Your task to perform on an android device: change keyboard looks Image 0: 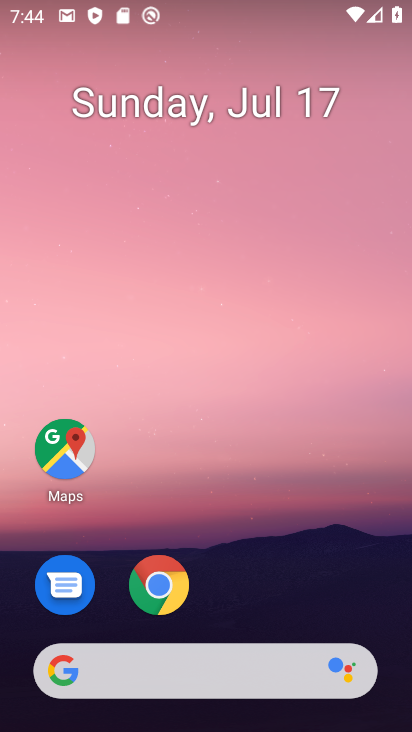
Step 0: drag from (179, 682) to (260, 344)
Your task to perform on an android device: change keyboard looks Image 1: 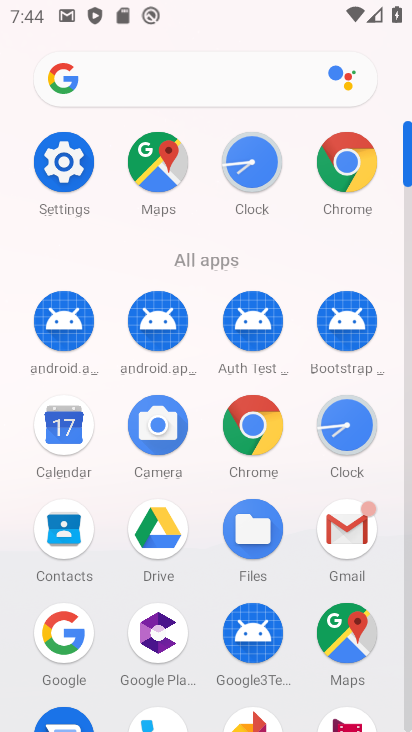
Step 1: click (60, 184)
Your task to perform on an android device: change keyboard looks Image 2: 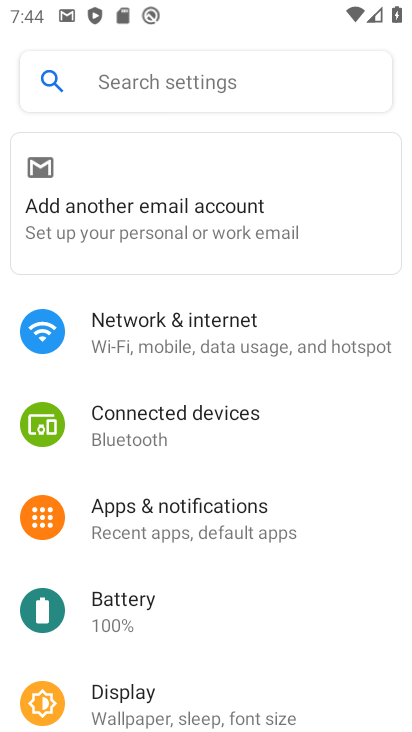
Step 2: drag from (281, 694) to (366, 129)
Your task to perform on an android device: change keyboard looks Image 3: 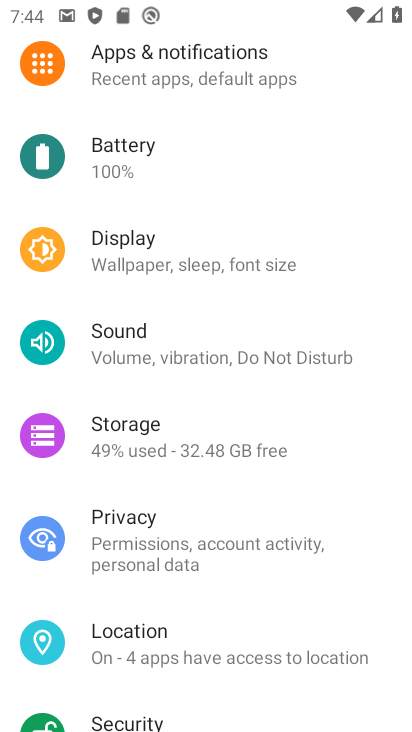
Step 3: drag from (237, 702) to (313, 213)
Your task to perform on an android device: change keyboard looks Image 4: 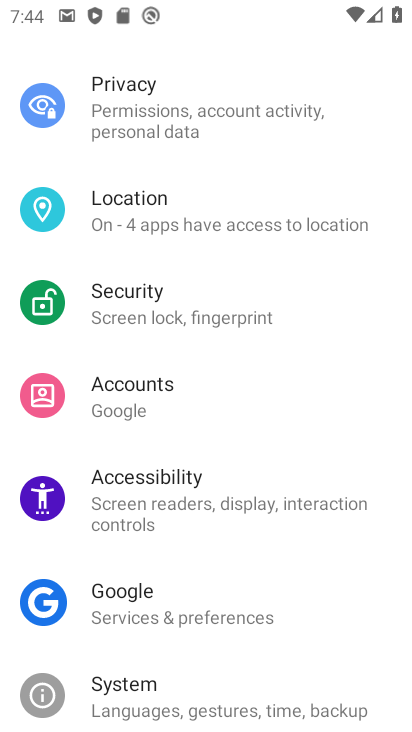
Step 4: drag from (244, 633) to (281, 131)
Your task to perform on an android device: change keyboard looks Image 5: 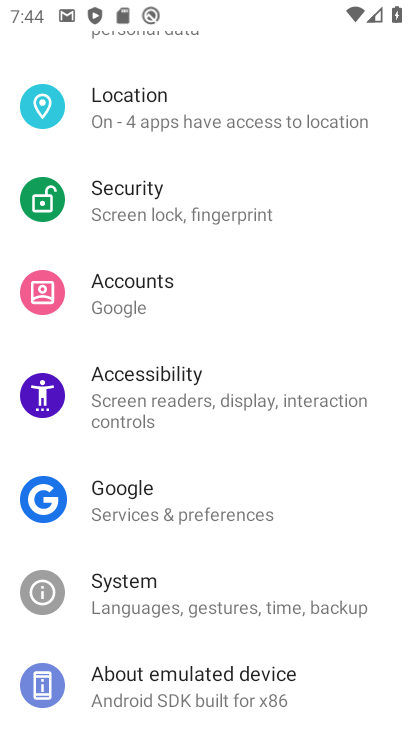
Step 5: click (156, 611)
Your task to perform on an android device: change keyboard looks Image 6: 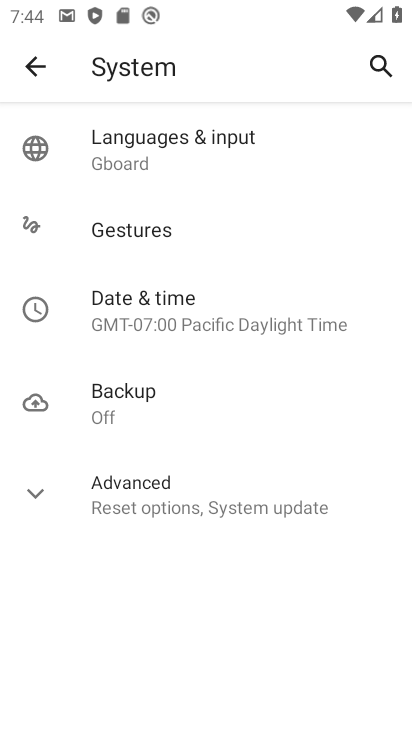
Step 6: click (140, 141)
Your task to perform on an android device: change keyboard looks Image 7: 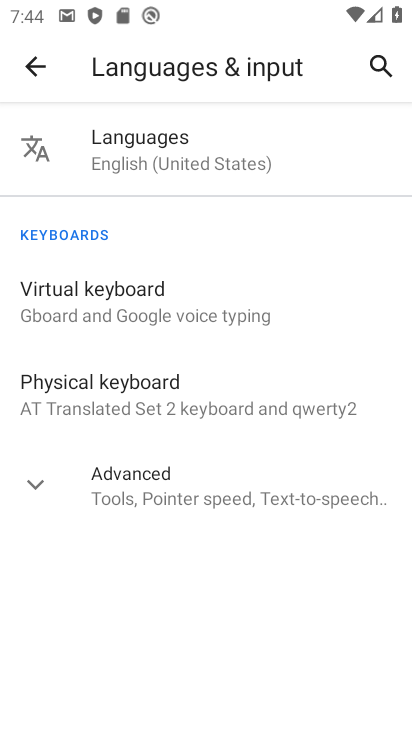
Step 7: click (64, 298)
Your task to perform on an android device: change keyboard looks Image 8: 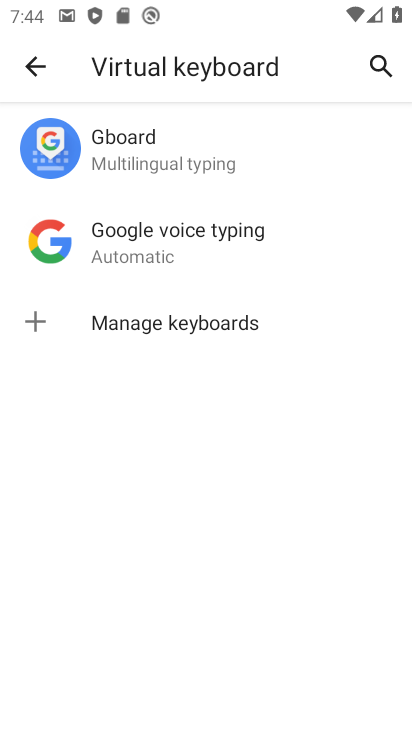
Step 8: click (114, 138)
Your task to perform on an android device: change keyboard looks Image 9: 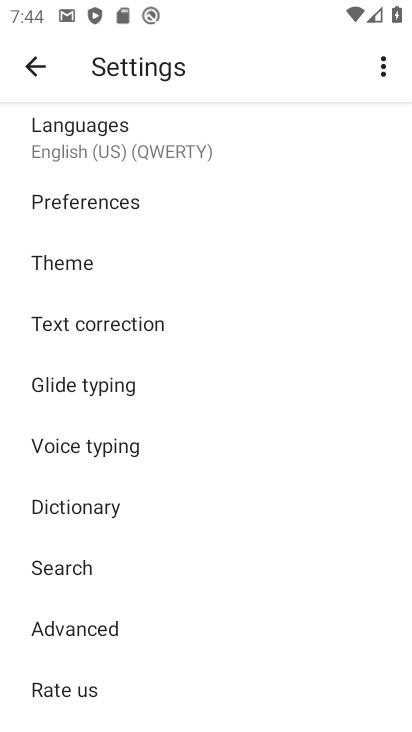
Step 9: click (84, 262)
Your task to perform on an android device: change keyboard looks Image 10: 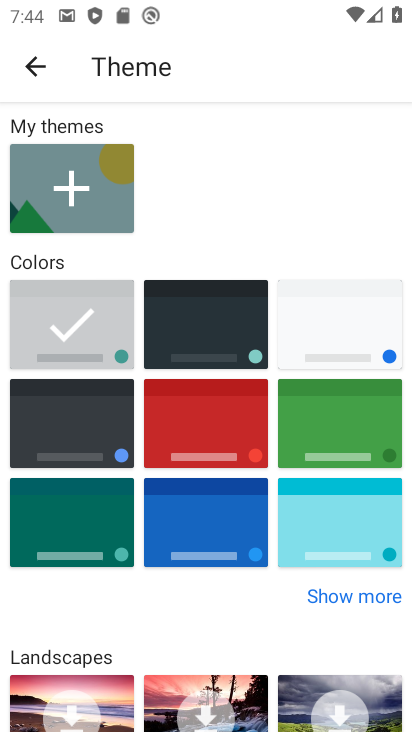
Step 10: click (343, 541)
Your task to perform on an android device: change keyboard looks Image 11: 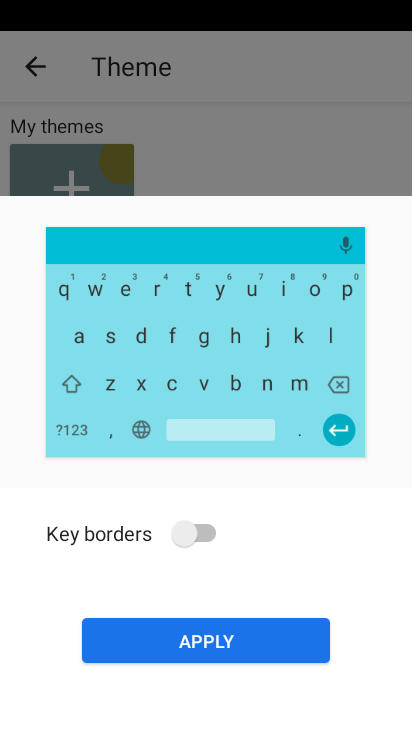
Step 11: click (193, 645)
Your task to perform on an android device: change keyboard looks Image 12: 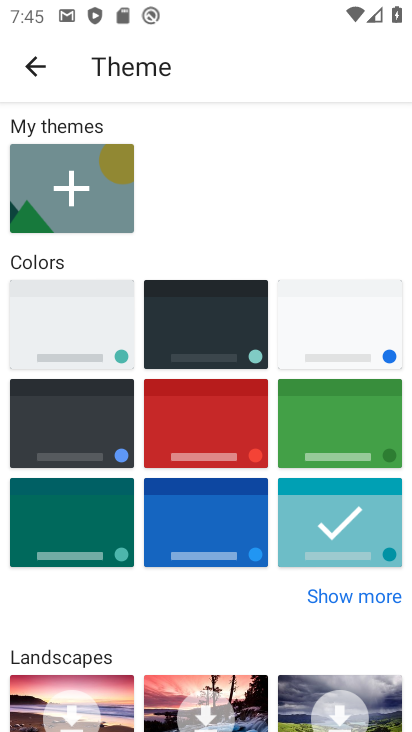
Step 12: task complete